Your task to perform on an android device: star an email in the gmail app Image 0: 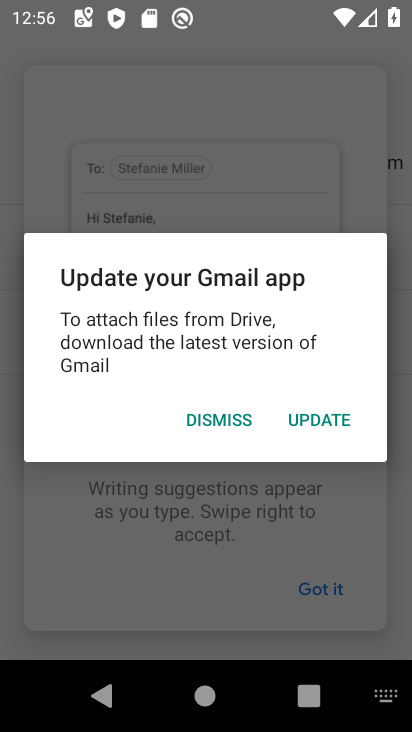
Step 0: press home button
Your task to perform on an android device: star an email in the gmail app Image 1: 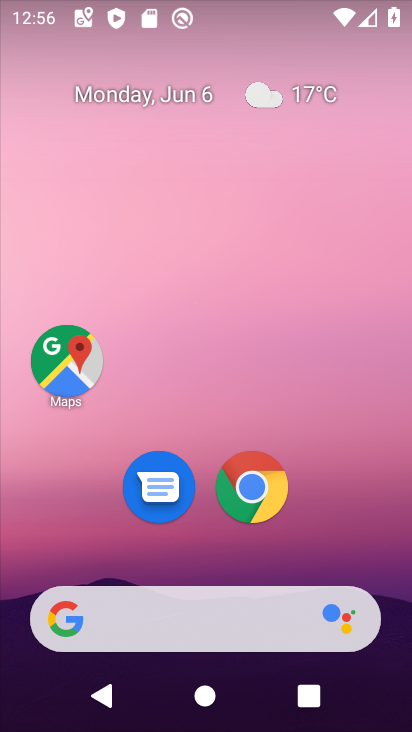
Step 1: drag from (102, 583) to (275, 2)
Your task to perform on an android device: star an email in the gmail app Image 2: 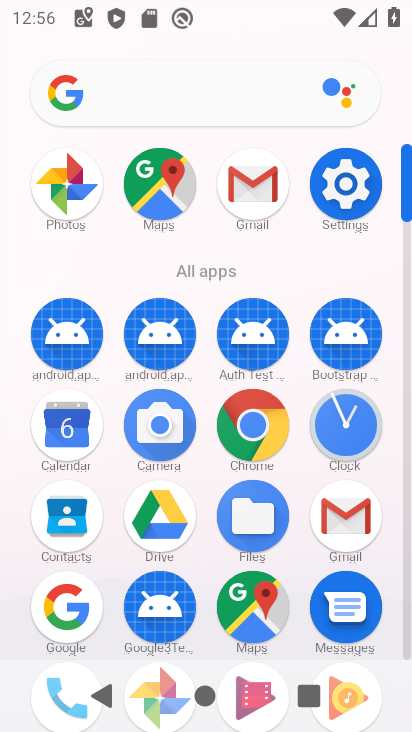
Step 2: drag from (148, 649) to (253, 326)
Your task to perform on an android device: star an email in the gmail app Image 3: 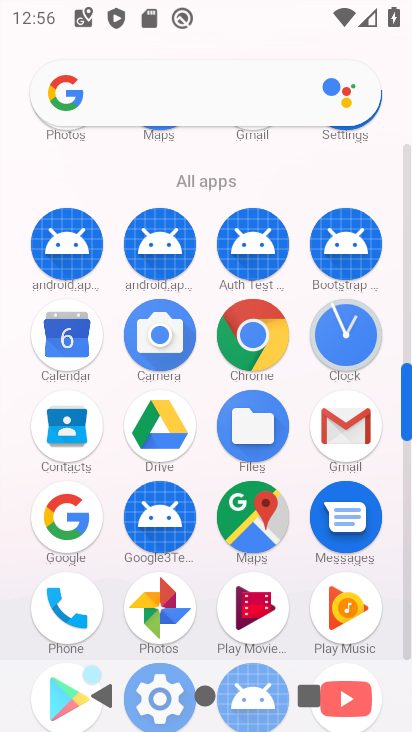
Step 3: click (353, 440)
Your task to perform on an android device: star an email in the gmail app Image 4: 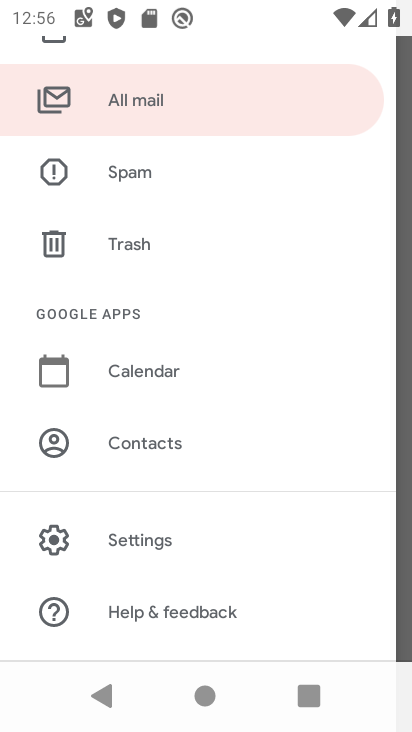
Step 4: click (223, 102)
Your task to perform on an android device: star an email in the gmail app Image 5: 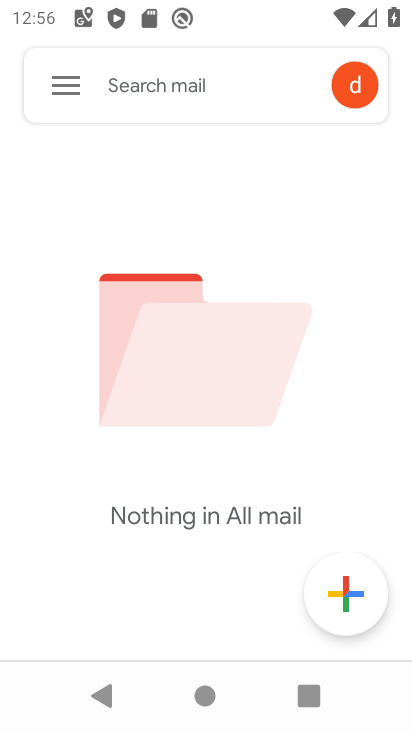
Step 5: task complete